Your task to perform on an android device: delete the emails in spam in the gmail app Image 0: 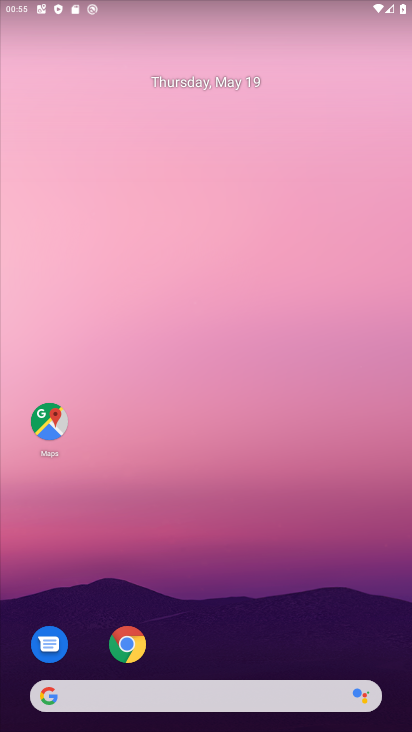
Step 0: drag from (324, 620) to (326, 216)
Your task to perform on an android device: delete the emails in spam in the gmail app Image 1: 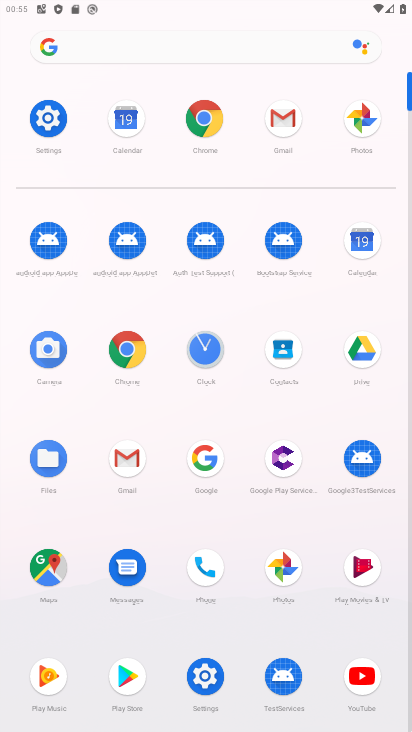
Step 1: click (121, 453)
Your task to perform on an android device: delete the emails in spam in the gmail app Image 2: 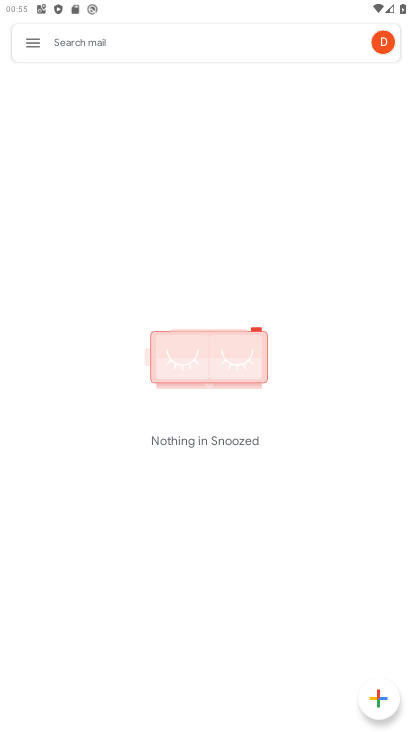
Step 2: click (36, 50)
Your task to perform on an android device: delete the emails in spam in the gmail app Image 3: 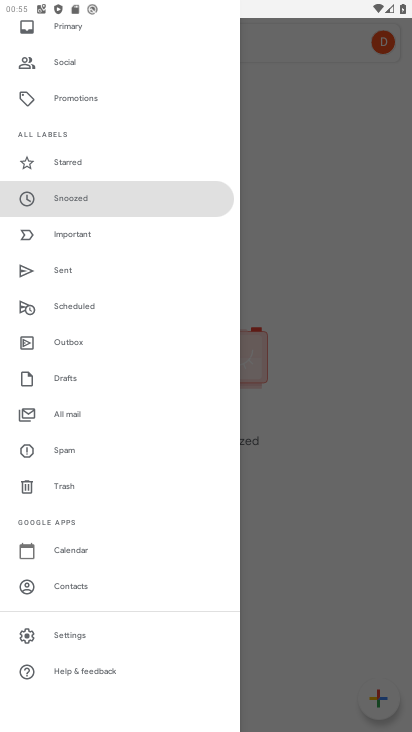
Step 3: click (73, 630)
Your task to perform on an android device: delete the emails in spam in the gmail app Image 4: 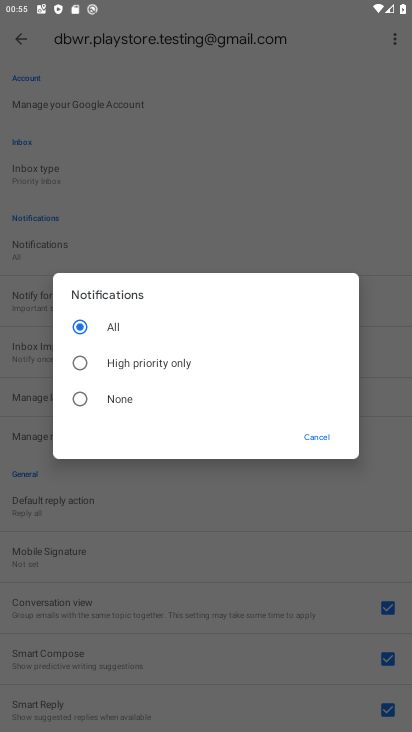
Step 4: click (314, 443)
Your task to perform on an android device: delete the emails in spam in the gmail app Image 5: 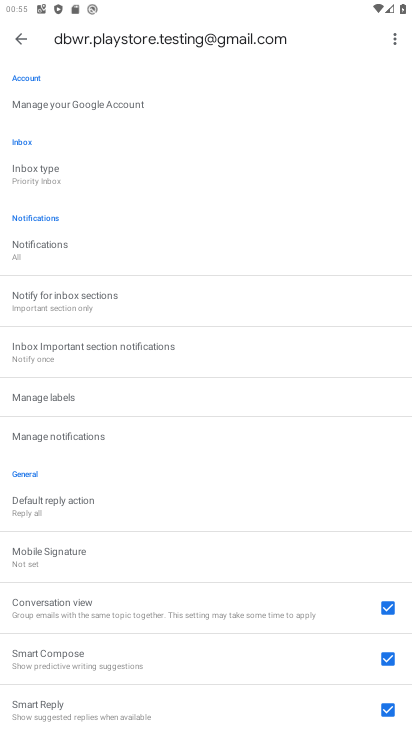
Step 5: click (32, 39)
Your task to perform on an android device: delete the emails in spam in the gmail app Image 6: 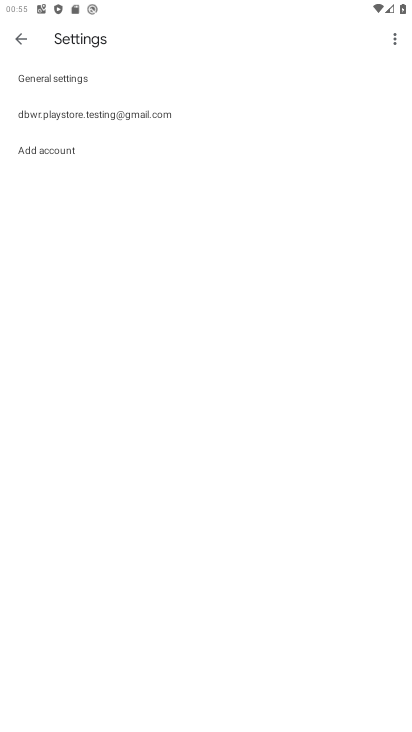
Step 6: click (24, 38)
Your task to perform on an android device: delete the emails in spam in the gmail app Image 7: 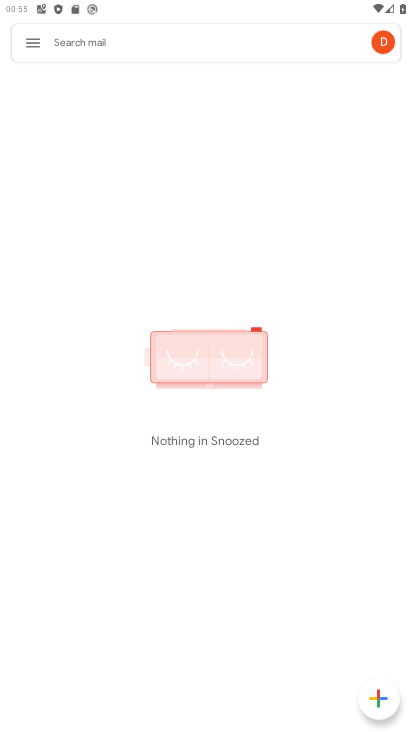
Step 7: click (27, 47)
Your task to perform on an android device: delete the emails in spam in the gmail app Image 8: 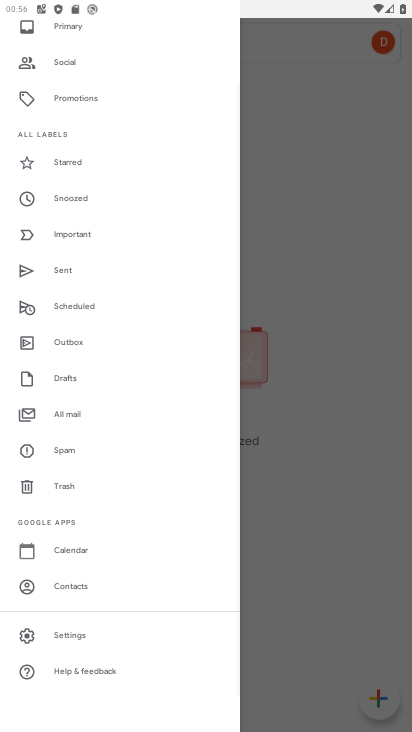
Step 8: click (76, 447)
Your task to perform on an android device: delete the emails in spam in the gmail app Image 9: 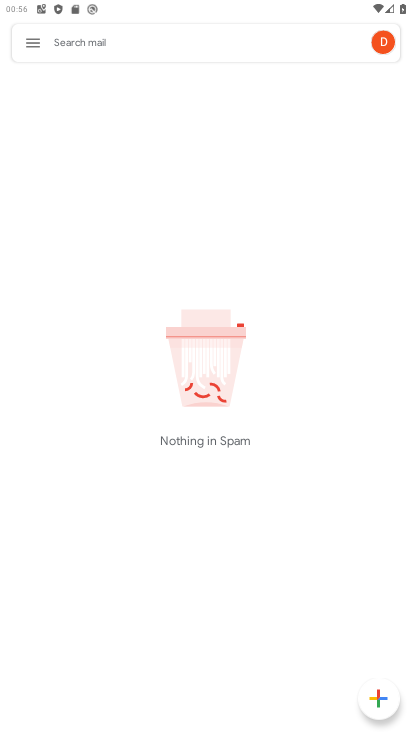
Step 9: task complete